Your task to perform on an android device: turn off airplane mode Image 0: 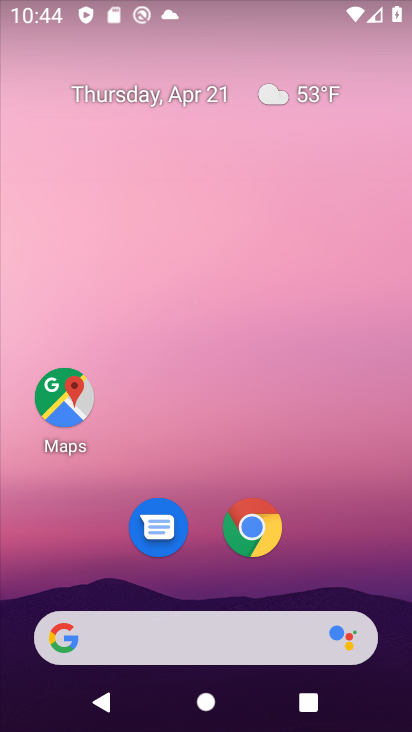
Step 0: drag from (357, 565) to (368, 88)
Your task to perform on an android device: turn off airplane mode Image 1: 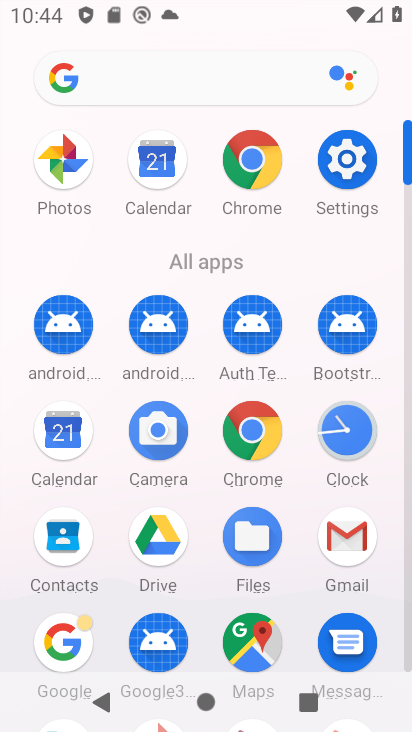
Step 1: click (361, 156)
Your task to perform on an android device: turn off airplane mode Image 2: 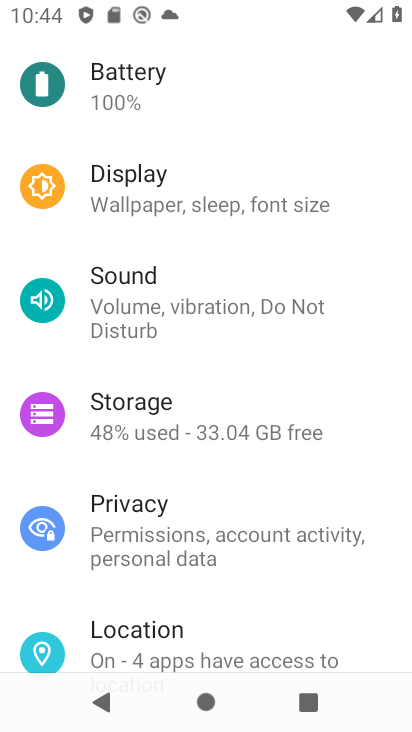
Step 2: drag from (375, 223) to (367, 411)
Your task to perform on an android device: turn off airplane mode Image 3: 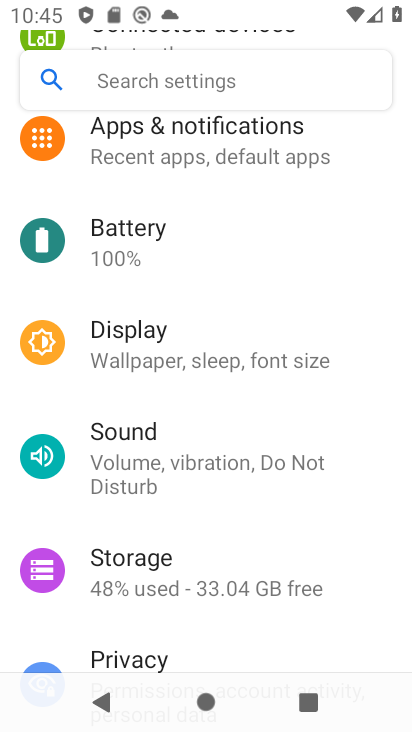
Step 3: drag from (370, 208) to (361, 446)
Your task to perform on an android device: turn off airplane mode Image 4: 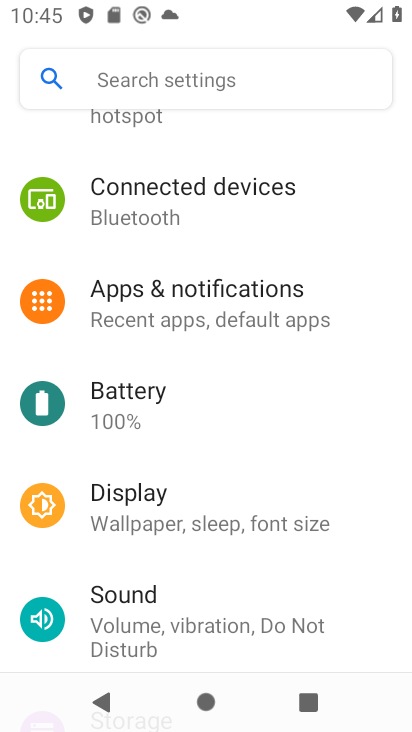
Step 4: drag from (364, 214) to (354, 400)
Your task to perform on an android device: turn off airplane mode Image 5: 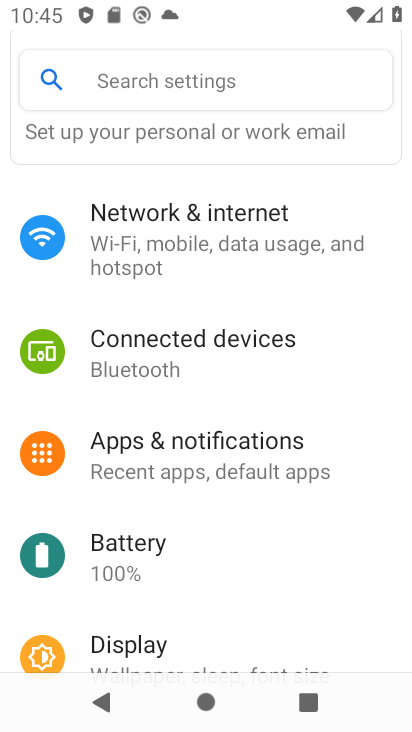
Step 5: click (264, 227)
Your task to perform on an android device: turn off airplane mode Image 6: 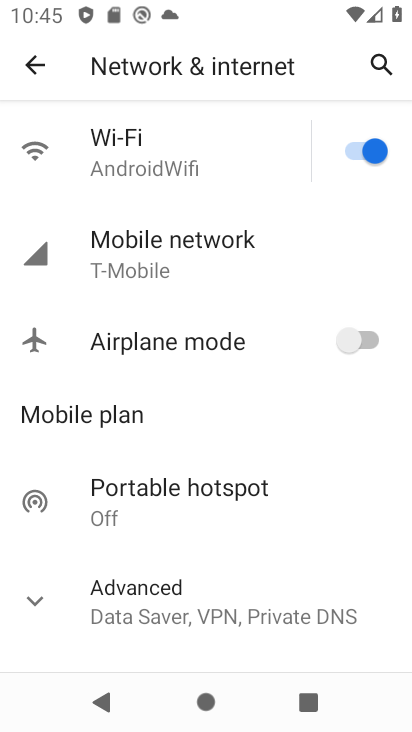
Step 6: task complete